Your task to perform on an android device: Go to accessibility settings Image 0: 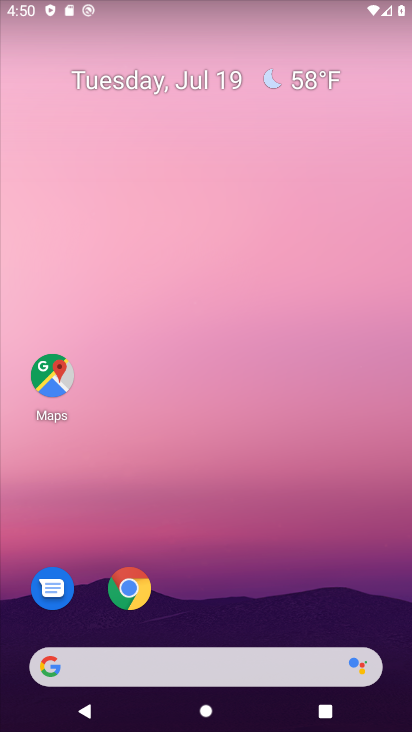
Step 0: drag from (307, 538) to (184, 106)
Your task to perform on an android device: Go to accessibility settings Image 1: 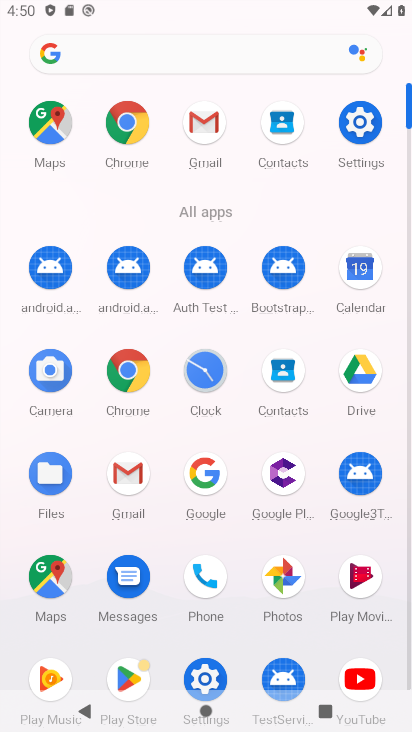
Step 1: click (358, 120)
Your task to perform on an android device: Go to accessibility settings Image 2: 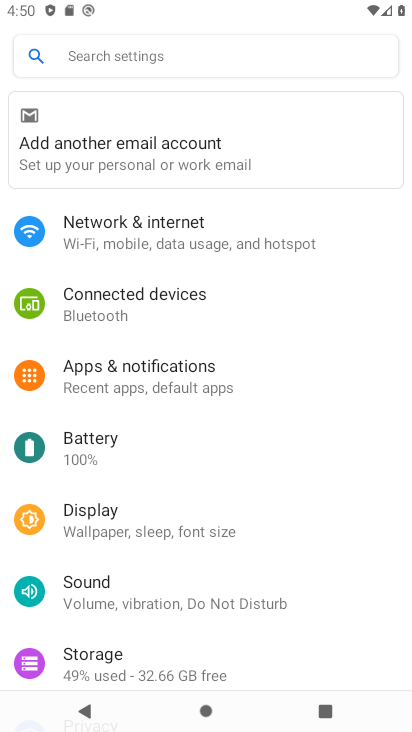
Step 2: drag from (239, 632) to (242, 180)
Your task to perform on an android device: Go to accessibility settings Image 3: 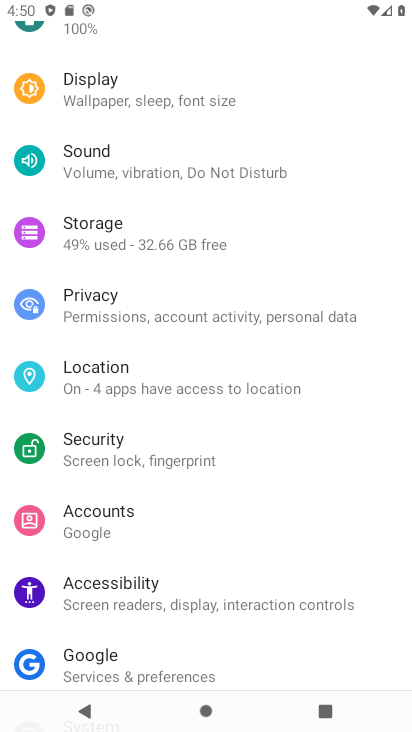
Step 3: click (167, 618)
Your task to perform on an android device: Go to accessibility settings Image 4: 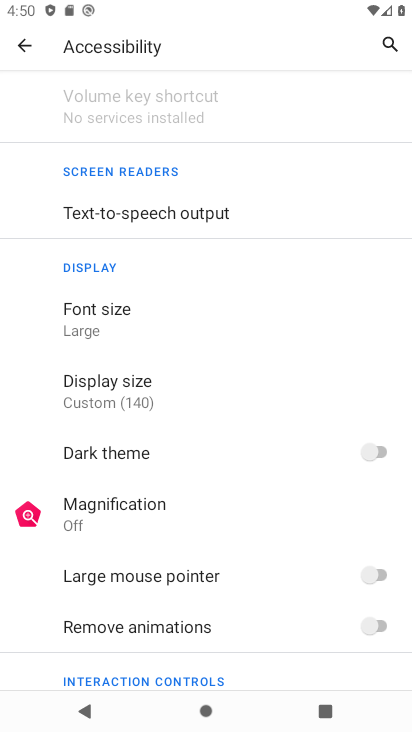
Step 4: task complete